Your task to perform on an android device: Open Yahoo.com Image 0: 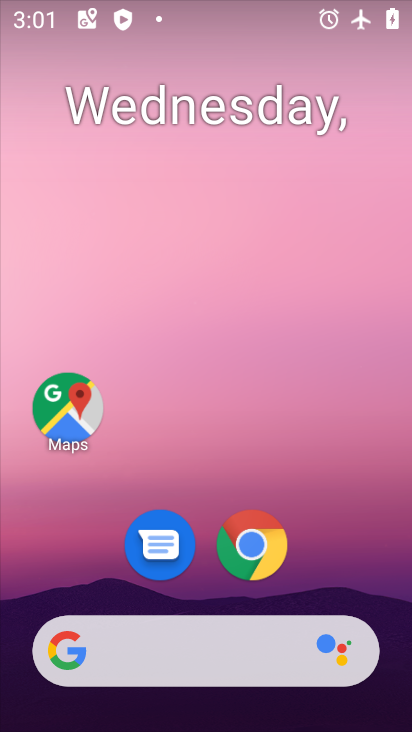
Step 0: drag from (324, 531) to (286, 95)
Your task to perform on an android device: Open Yahoo.com Image 1: 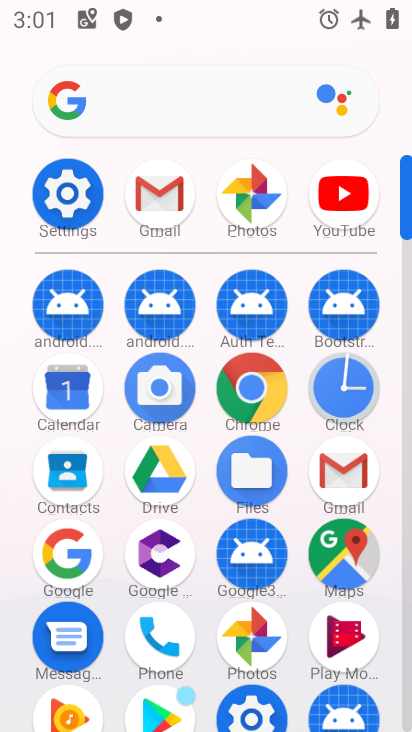
Step 1: click (249, 390)
Your task to perform on an android device: Open Yahoo.com Image 2: 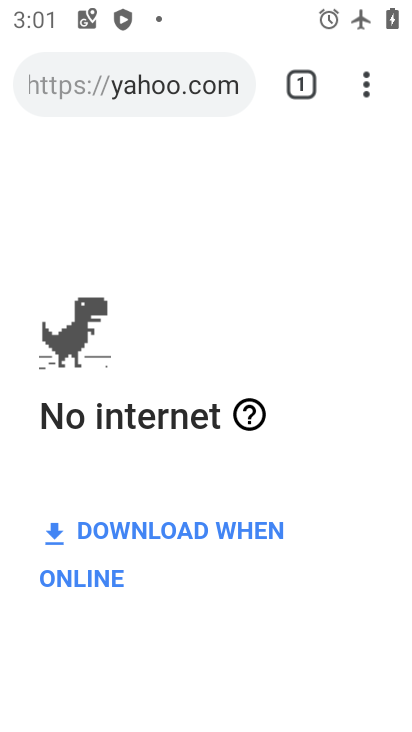
Step 2: task complete